Your task to perform on an android device: remove spam from my inbox in the gmail app Image 0: 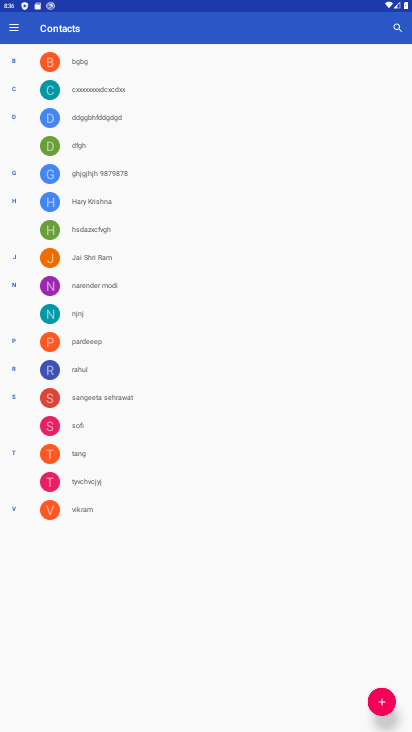
Step 0: press home button
Your task to perform on an android device: remove spam from my inbox in the gmail app Image 1: 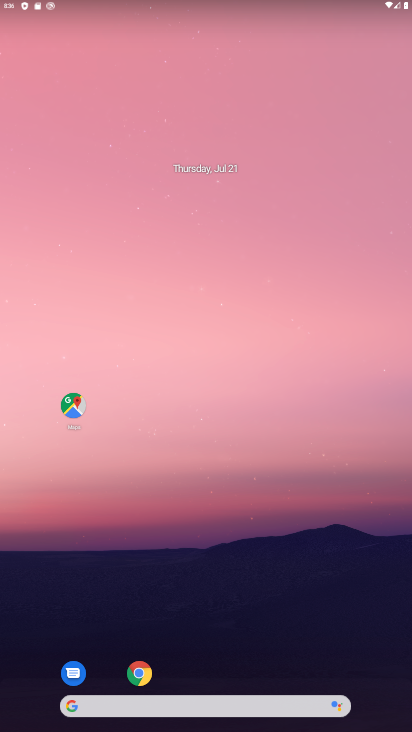
Step 1: drag from (355, 565) to (311, 76)
Your task to perform on an android device: remove spam from my inbox in the gmail app Image 2: 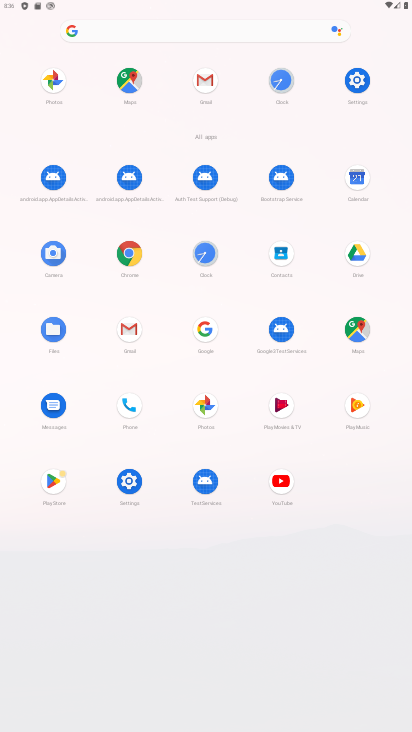
Step 2: click (131, 332)
Your task to perform on an android device: remove spam from my inbox in the gmail app Image 3: 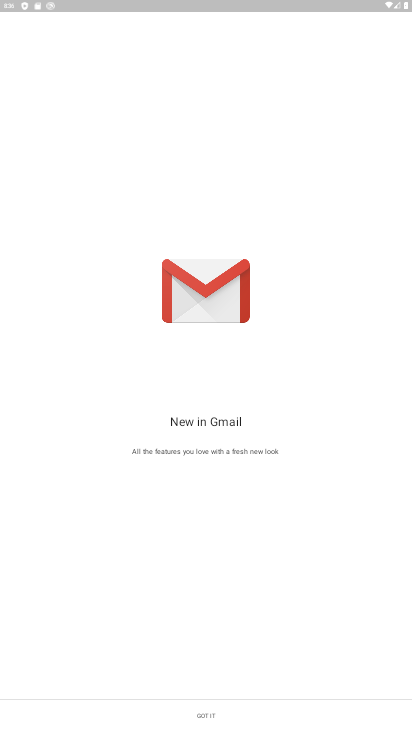
Step 3: click (204, 722)
Your task to perform on an android device: remove spam from my inbox in the gmail app Image 4: 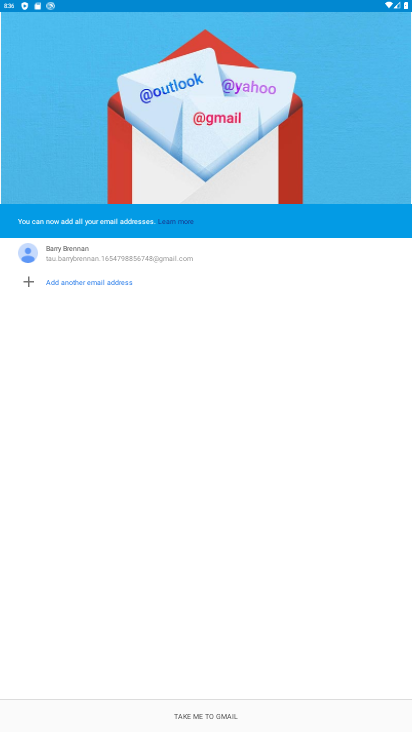
Step 4: click (204, 722)
Your task to perform on an android device: remove spam from my inbox in the gmail app Image 5: 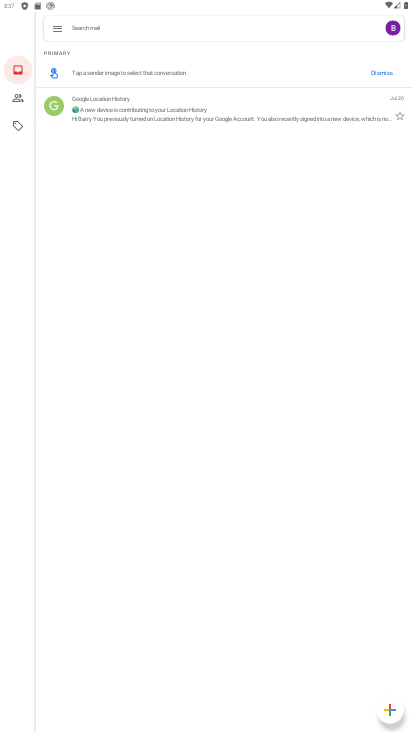
Step 5: click (51, 33)
Your task to perform on an android device: remove spam from my inbox in the gmail app Image 6: 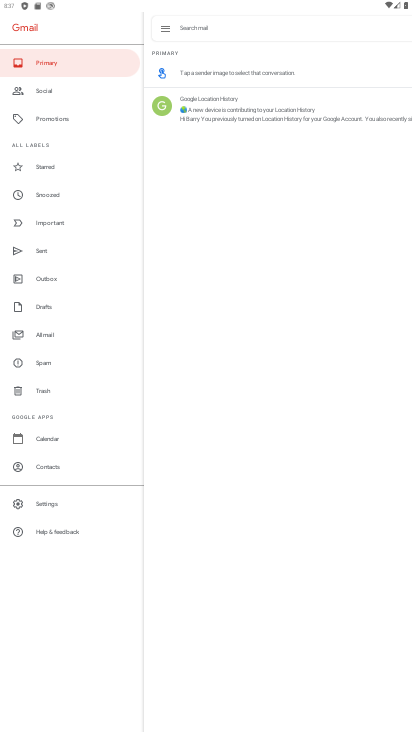
Step 6: click (29, 364)
Your task to perform on an android device: remove spam from my inbox in the gmail app Image 7: 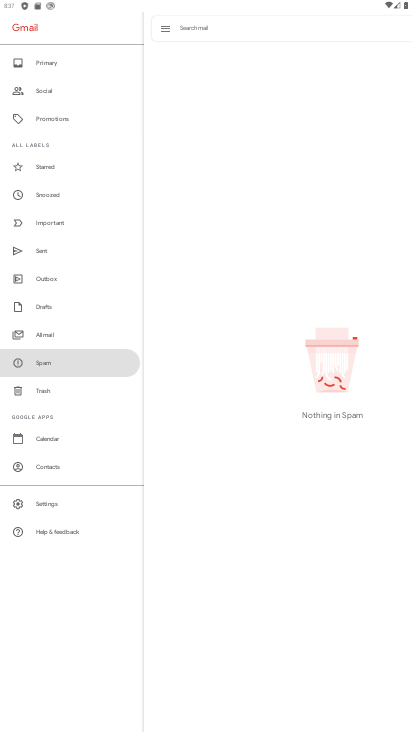
Step 7: task complete